Your task to perform on an android device: Open Wikipedia Image 0: 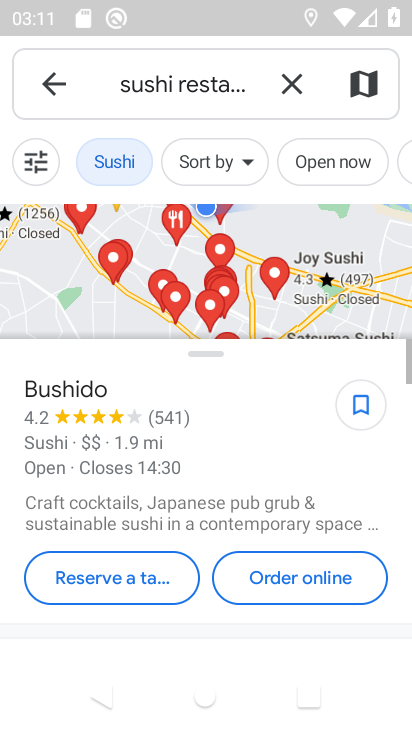
Step 0: press home button
Your task to perform on an android device: Open Wikipedia Image 1: 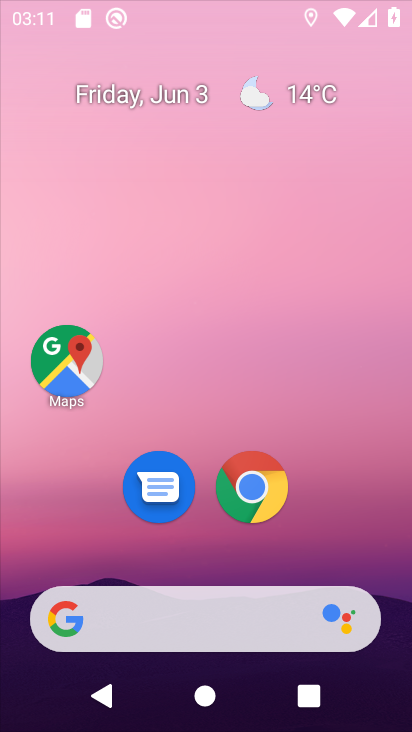
Step 1: click (263, 476)
Your task to perform on an android device: Open Wikipedia Image 2: 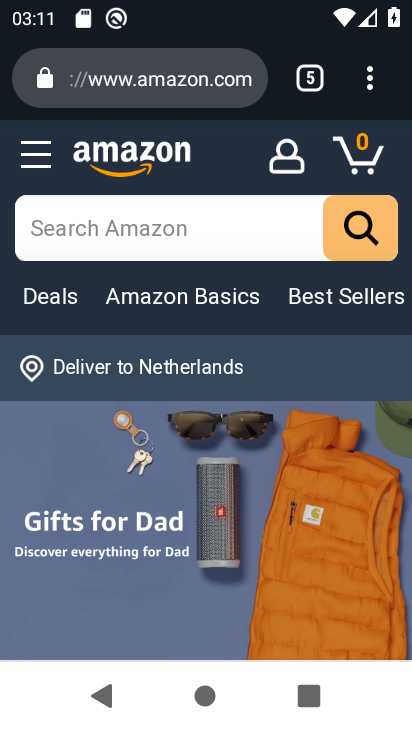
Step 2: click (309, 75)
Your task to perform on an android device: Open Wikipedia Image 3: 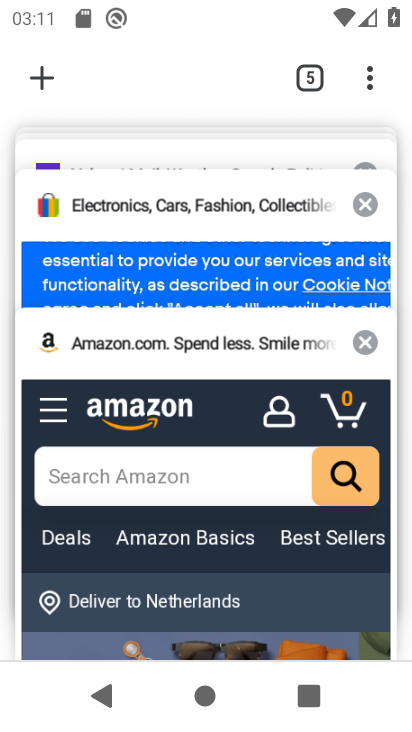
Step 3: click (42, 81)
Your task to perform on an android device: Open Wikipedia Image 4: 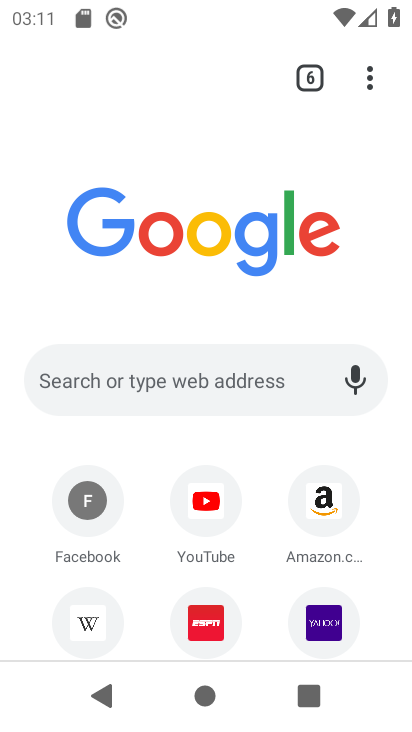
Step 4: click (104, 630)
Your task to perform on an android device: Open Wikipedia Image 5: 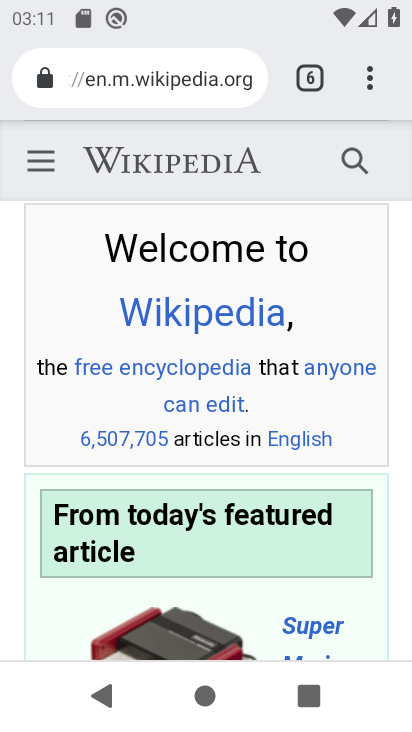
Step 5: task complete